Your task to perform on an android device: open device folders in google photos Image 0: 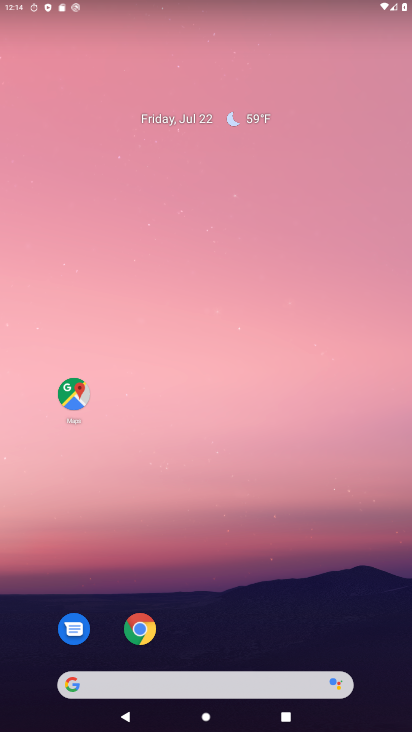
Step 0: drag from (276, 690) to (370, 43)
Your task to perform on an android device: open device folders in google photos Image 1: 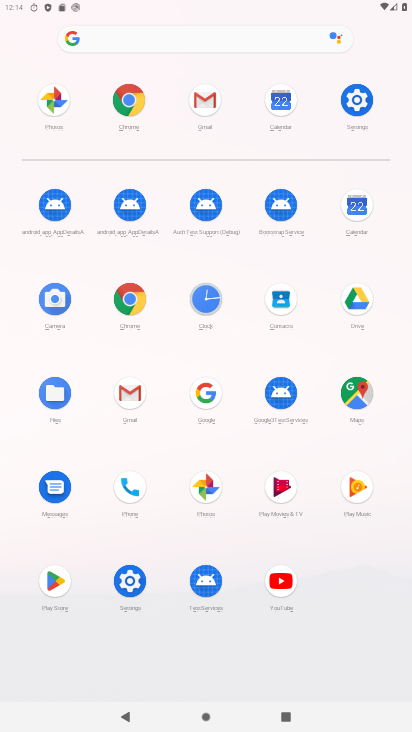
Step 1: click (199, 492)
Your task to perform on an android device: open device folders in google photos Image 2: 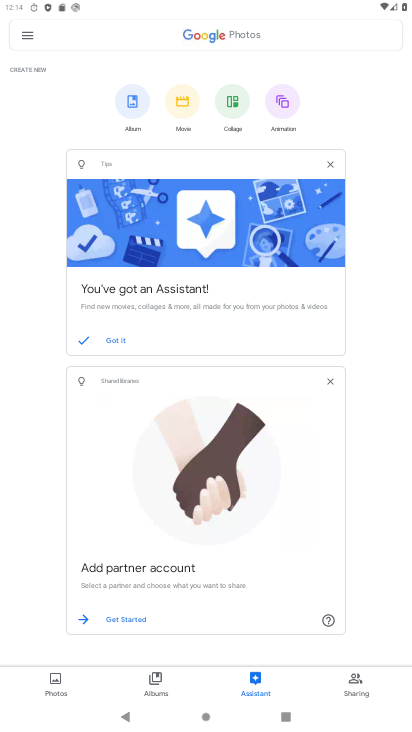
Step 2: click (59, 676)
Your task to perform on an android device: open device folders in google photos Image 3: 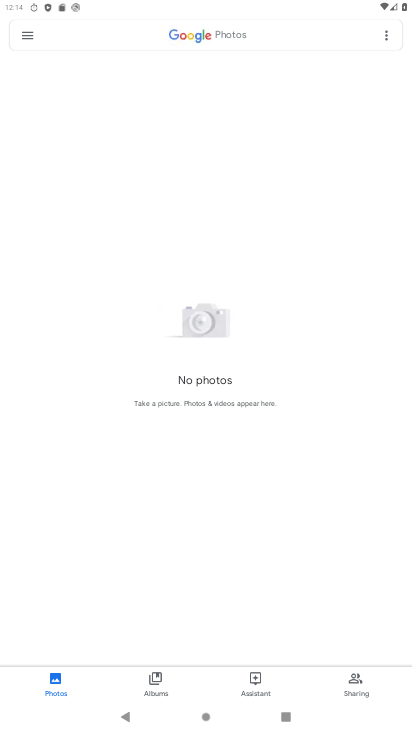
Step 3: click (375, 28)
Your task to perform on an android device: open device folders in google photos Image 4: 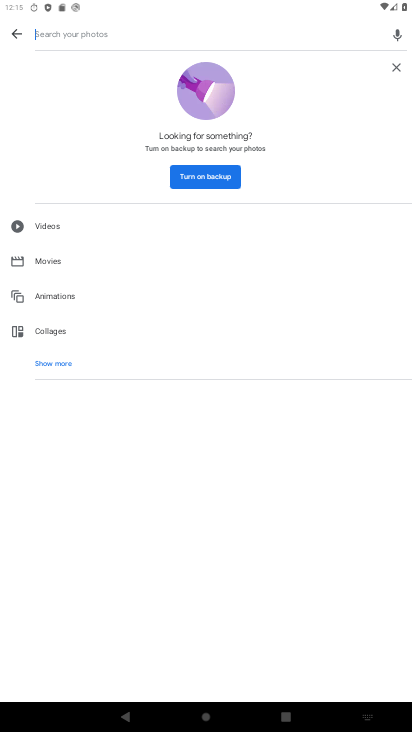
Step 4: press back button
Your task to perform on an android device: open device folders in google photos Image 5: 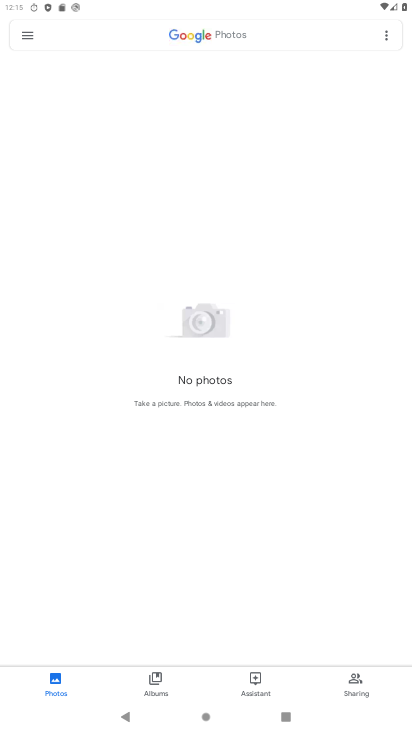
Step 5: click (27, 35)
Your task to perform on an android device: open device folders in google photos Image 6: 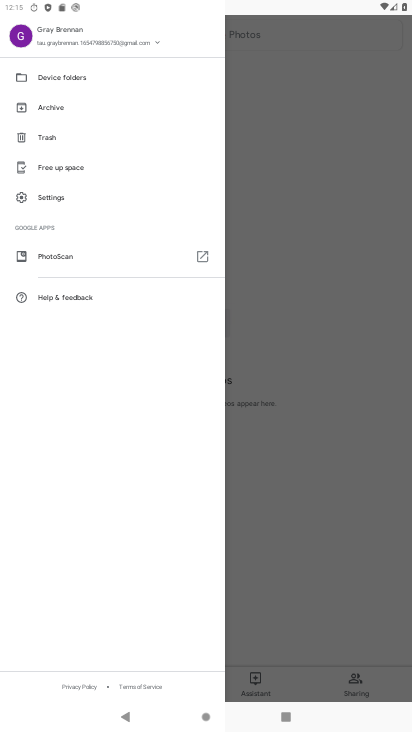
Step 6: click (98, 81)
Your task to perform on an android device: open device folders in google photos Image 7: 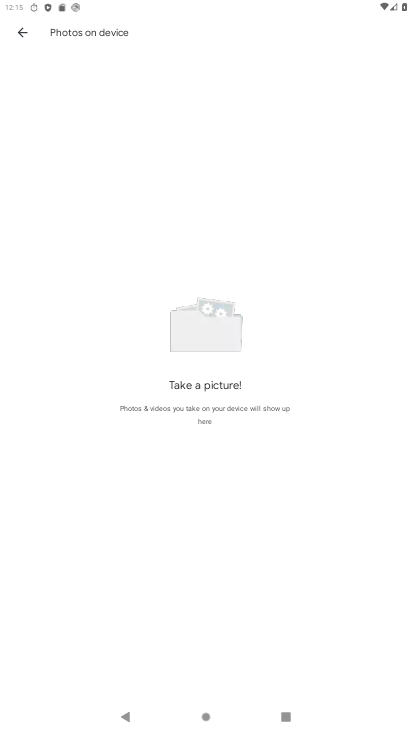
Step 7: task complete